Your task to perform on an android device: Search for razer blackwidow on target, select the first entry, add it to the cart, then select checkout. Image 0: 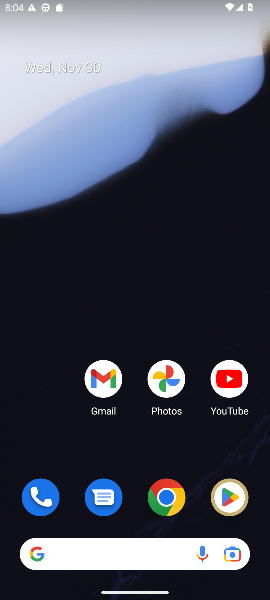
Step 0: task complete